Your task to perform on an android device: Go to Amazon Image 0: 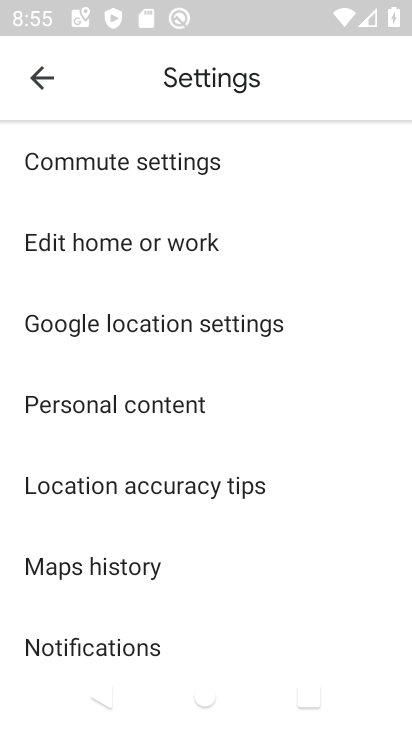
Step 0: press home button
Your task to perform on an android device: Go to Amazon Image 1: 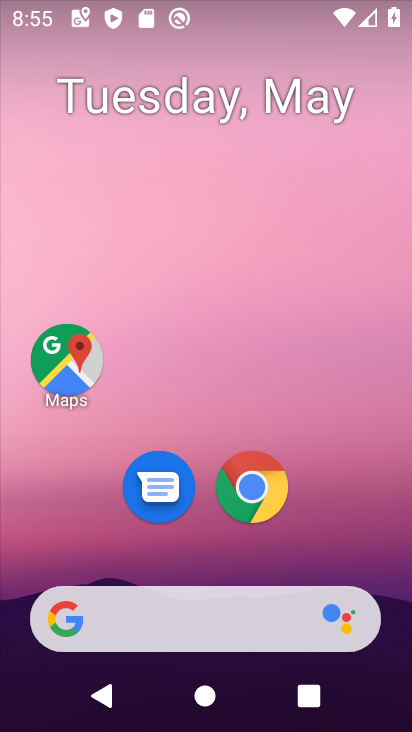
Step 1: drag from (358, 539) to (364, 204)
Your task to perform on an android device: Go to Amazon Image 2: 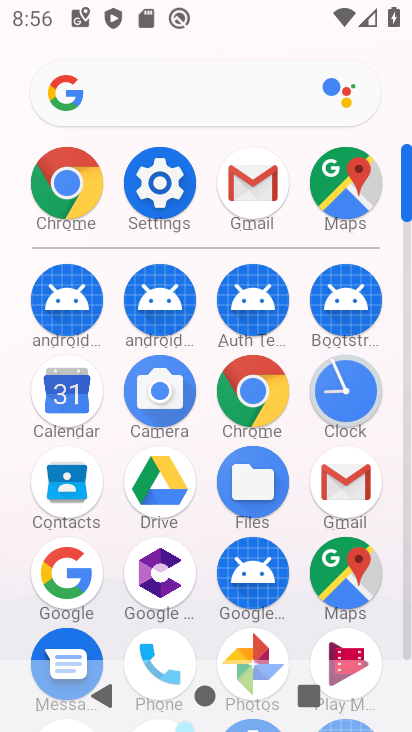
Step 2: click (271, 401)
Your task to perform on an android device: Go to Amazon Image 3: 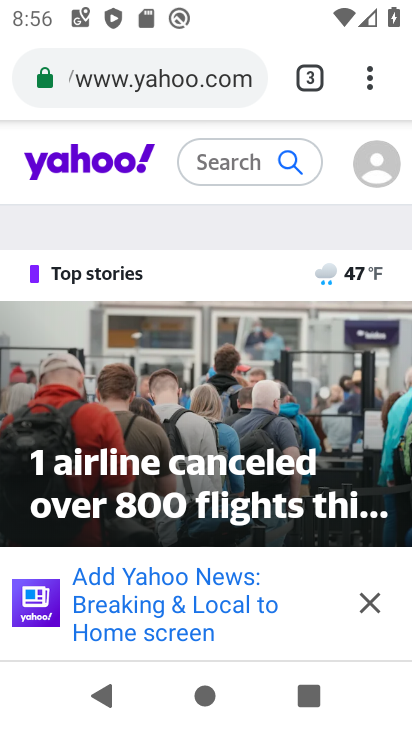
Step 3: click (202, 84)
Your task to perform on an android device: Go to Amazon Image 4: 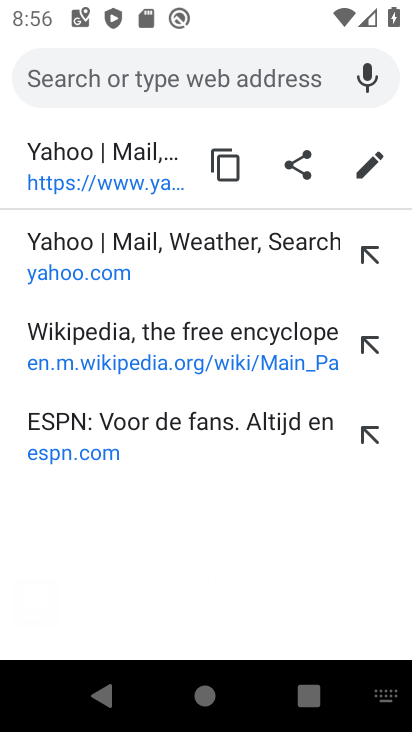
Step 4: type "amazon"
Your task to perform on an android device: Go to Amazon Image 5: 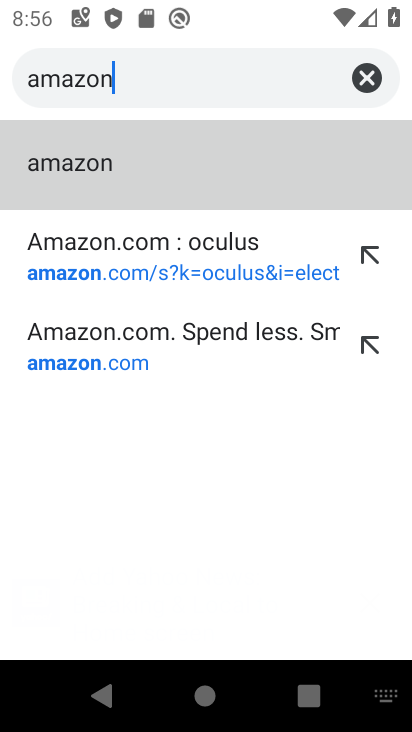
Step 5: click (152, 237)
Your task to perform on an android device: Go to Amazon Image 6: 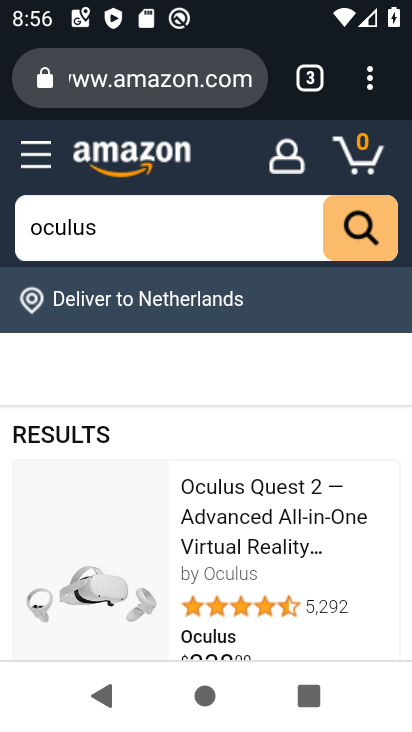
Step 6: task complete